Your task to perform on an android device: open app "Messenger Lite" Image 0: 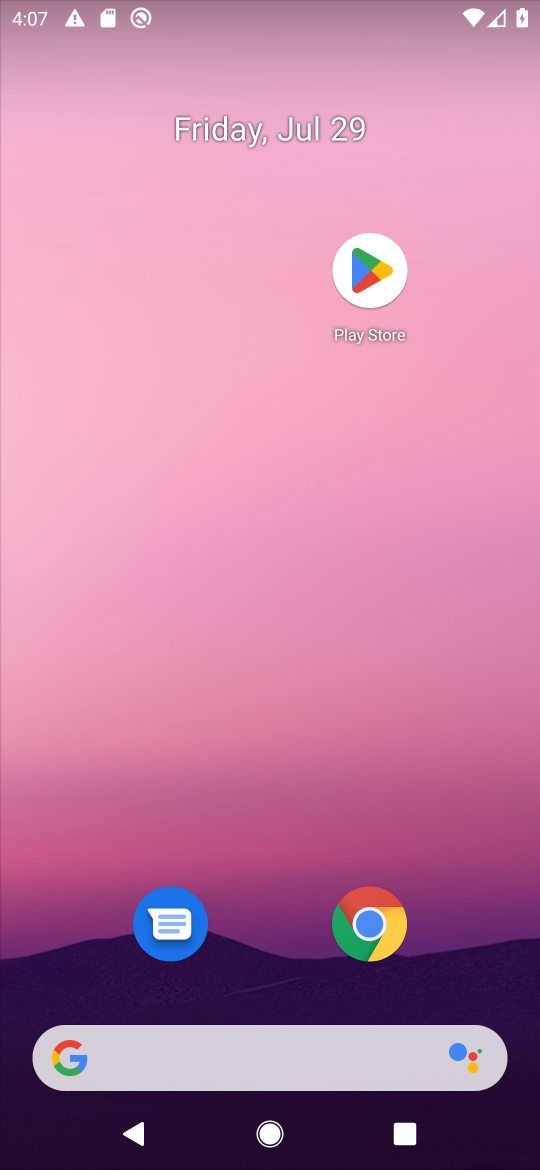
Step 0: click (271, 303)
Your task to perform on an android device: open app "Messenger Lite" Image 1: 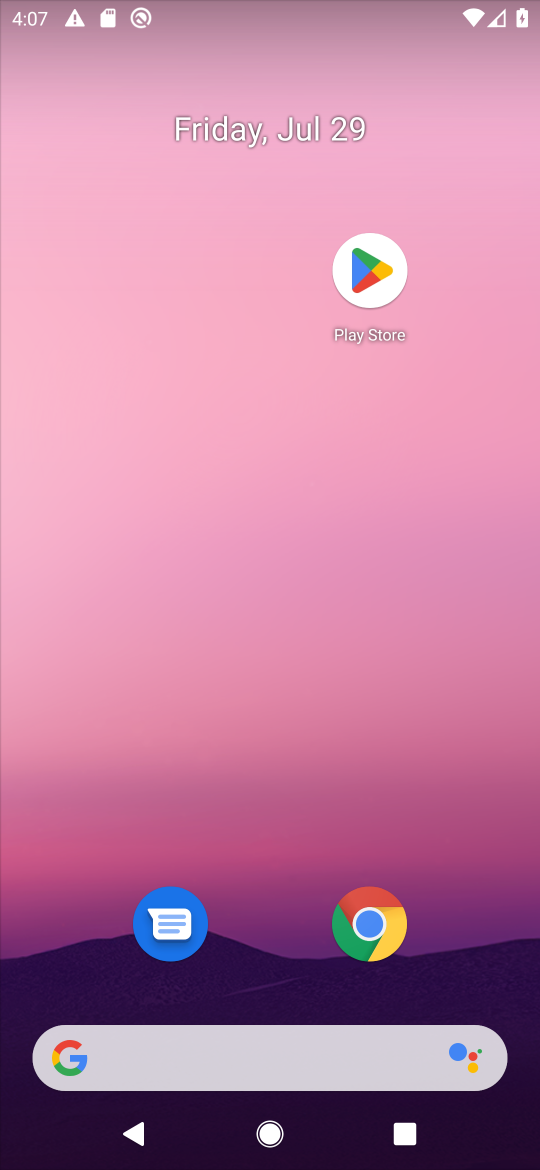
Step 1: drag from (212, 231) to (169, 18)
Your task to perform on an android device: open app "Messenger Lite" Image 2: 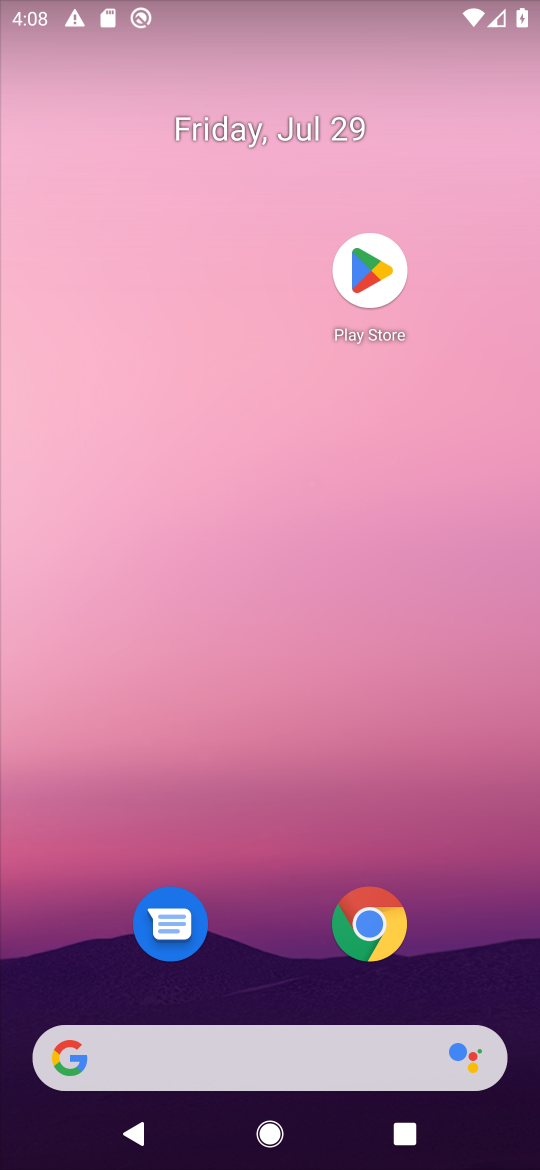
Step 2: drag from (240, 729) to (113, 150)
Your task to perform on an android device: open app "Messenger Lite" Image 3: 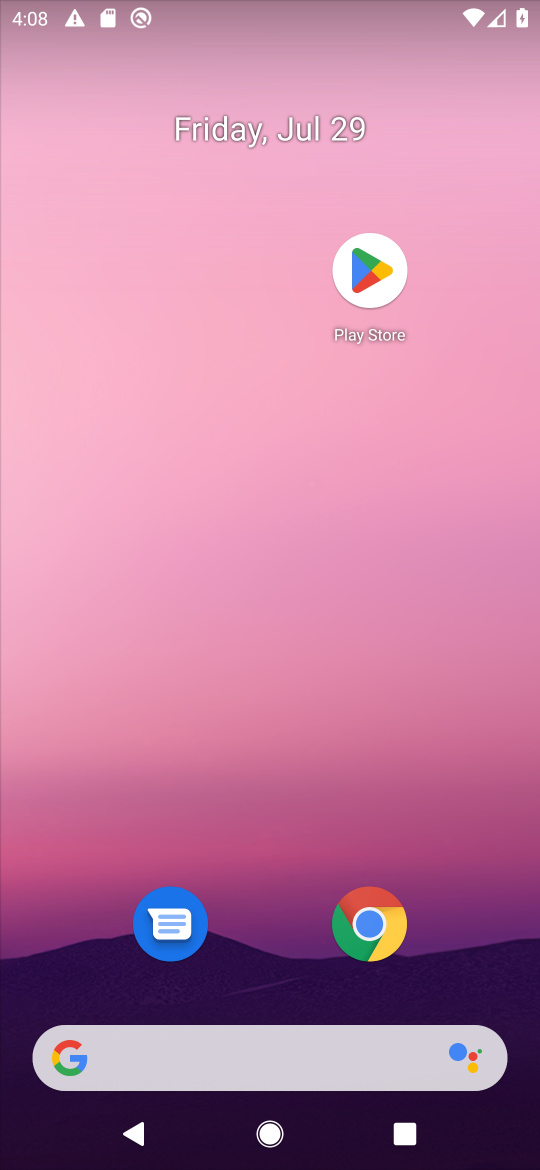
Step 3: drag from (298, 665) to (281, 103)
Your task to perform on an android device: open app "Messenger Lite" Image 4: 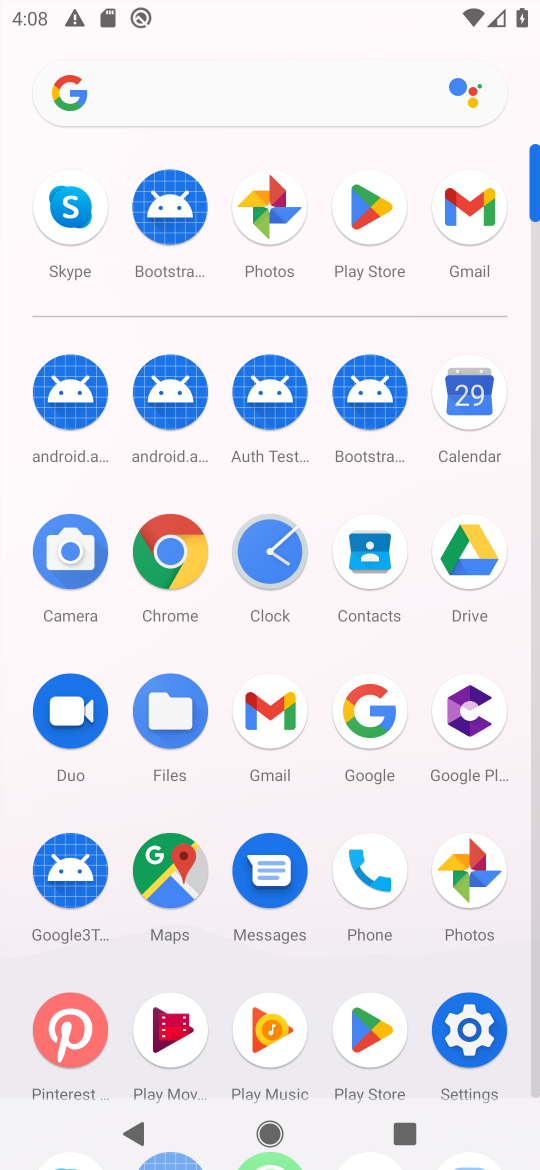
Step 4: click (367, 211)
Your task to perform on an android device: open app "Messenger Lite" Image 5: 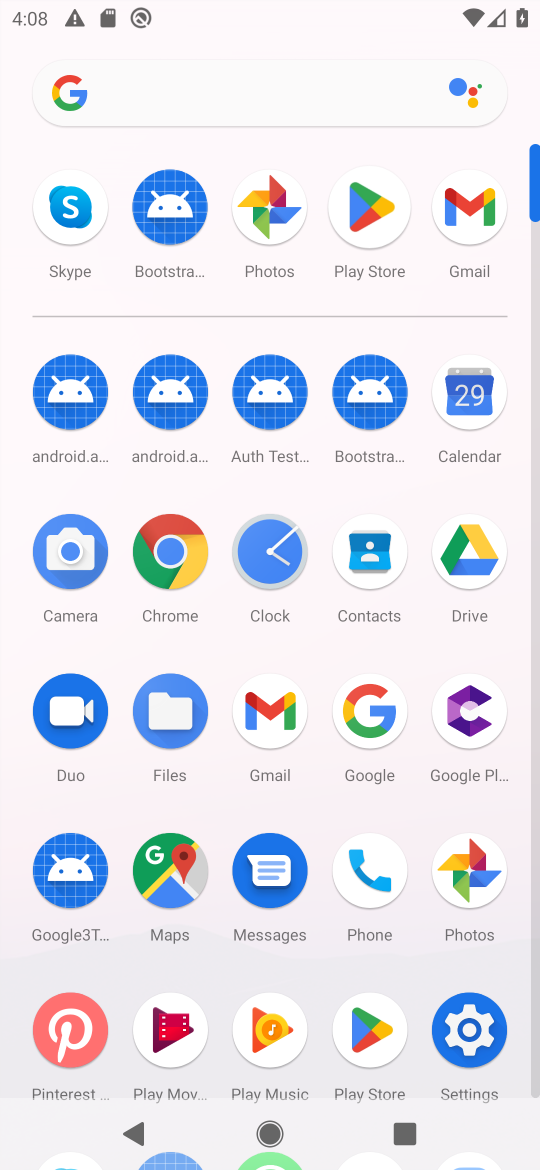
Step 5: click (374, 220)
Your task to perform on an android device: open app "Messenger Lite" Image 6: 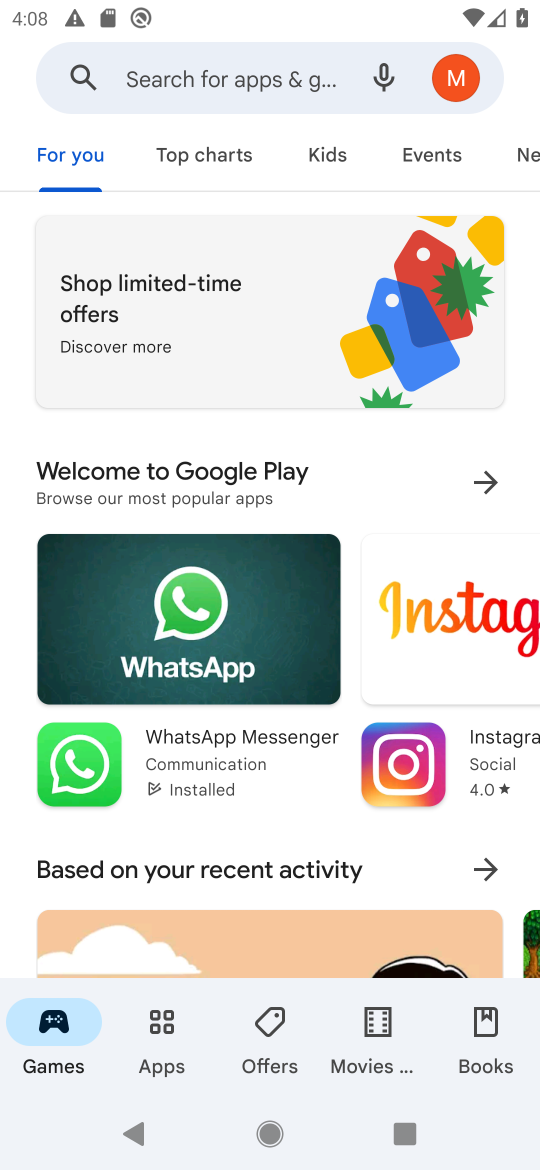
Step 6: click (151, 83)
Your task to perform on an android device: open app "Messenger Lite" Image 7: 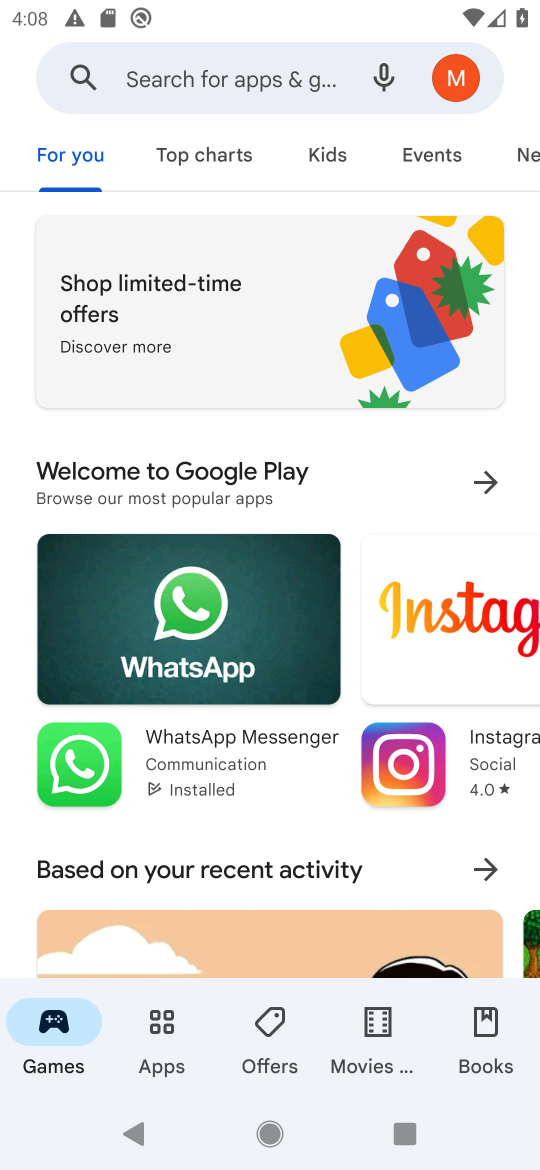
Step 7: click (146, 80)
Your task to perform on an android device: open app "Messenger Lite" Image 8: 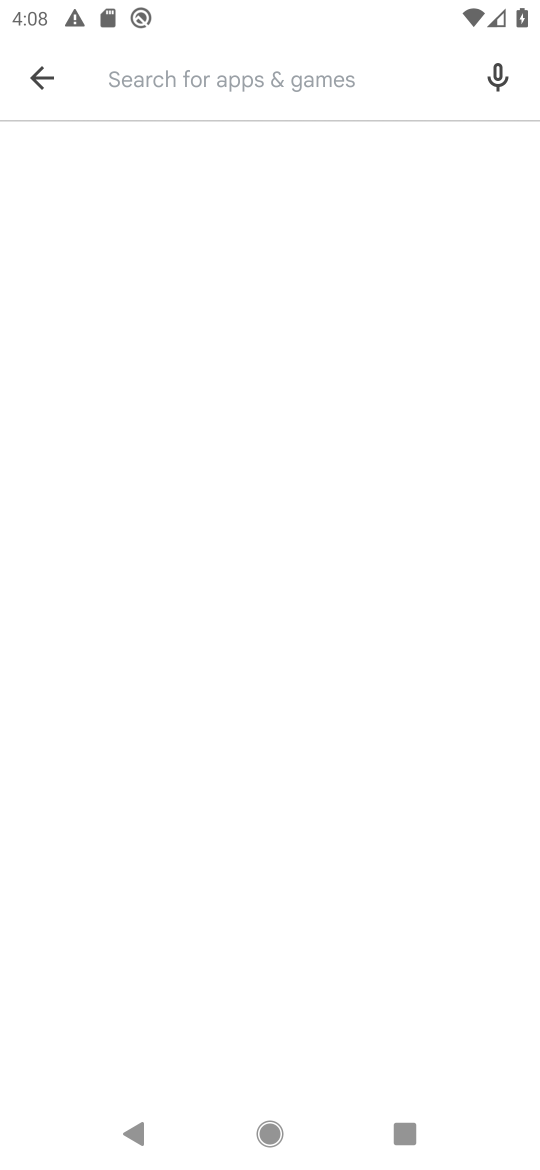
Step 8: click (145, 80)
Your task to perform on an android device: open app "Messenger Lite" Image 9: 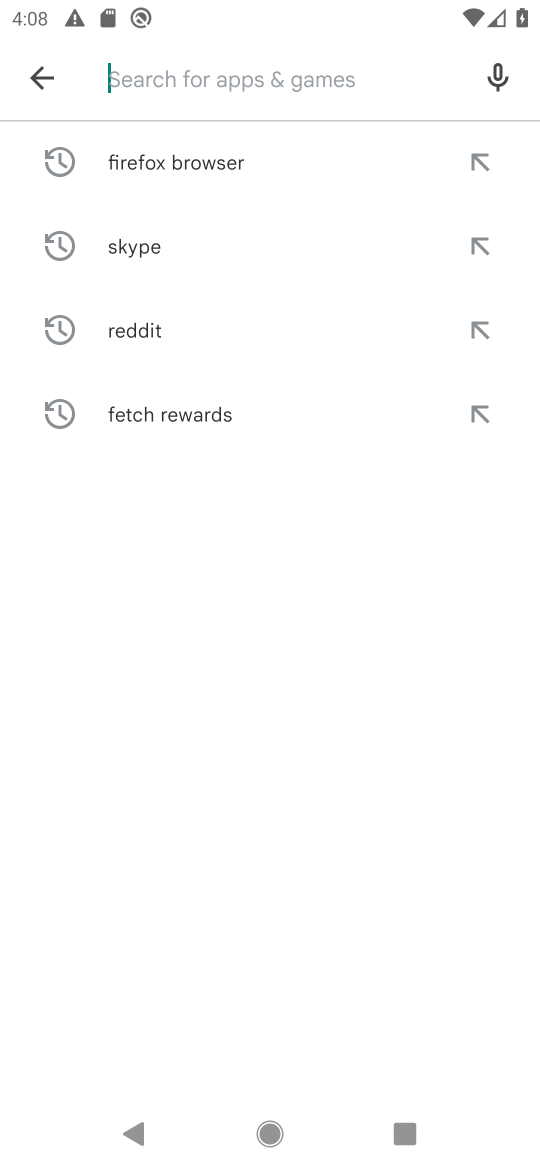
Step 9: click (150, 69)
Your task to perform on an android device: open app "Messenger Lite" Image 10: 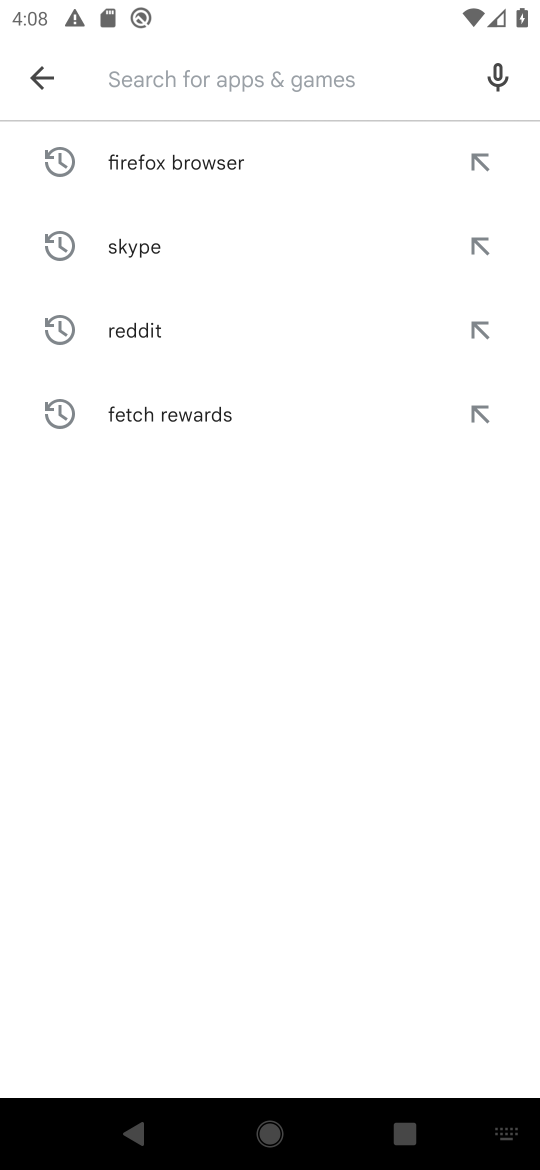
Step 10: click (160, 84)
Your task to perform on an android device: open app "Messenger Lite" Image 11: 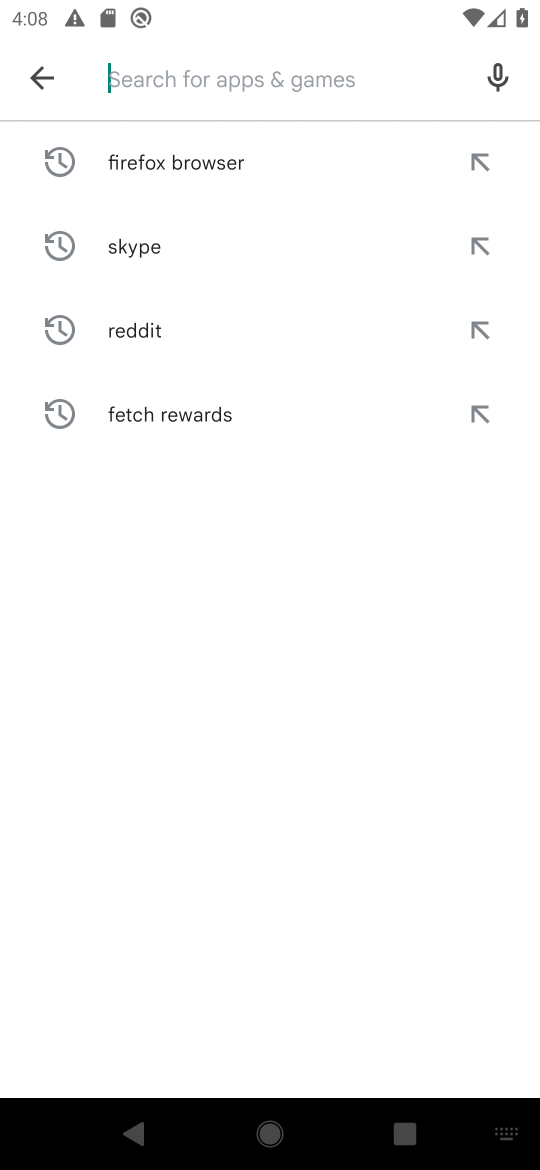
Step 11: type "Messenger lite"
Your task to perform on an android device: open app "Messenger Lite" Image 12: 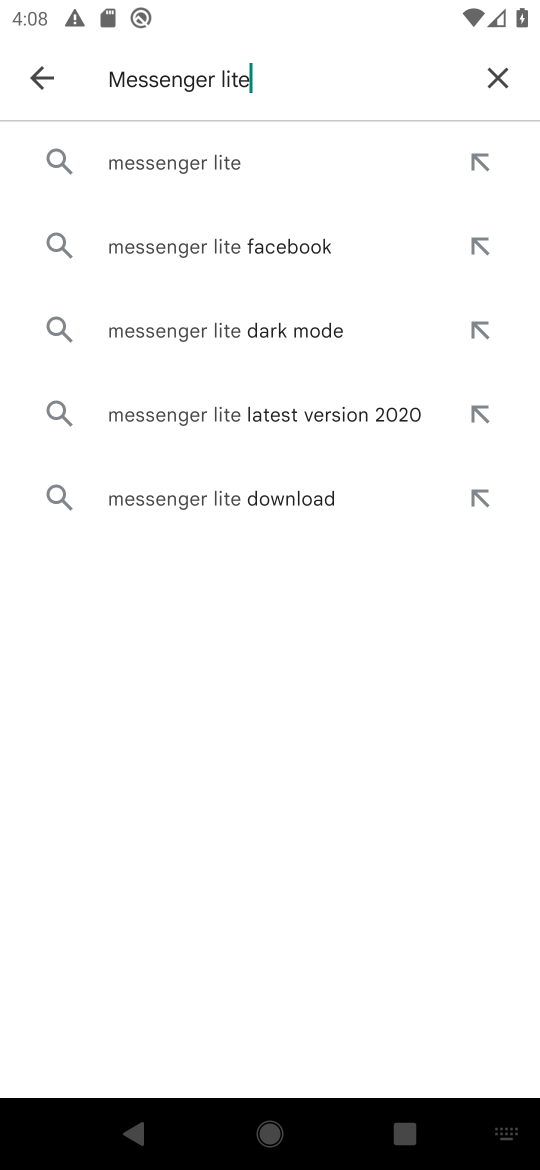
Step 12: click (182, 153)
Your task to perform on an android device: open app "Messenger Lite" Image 13: 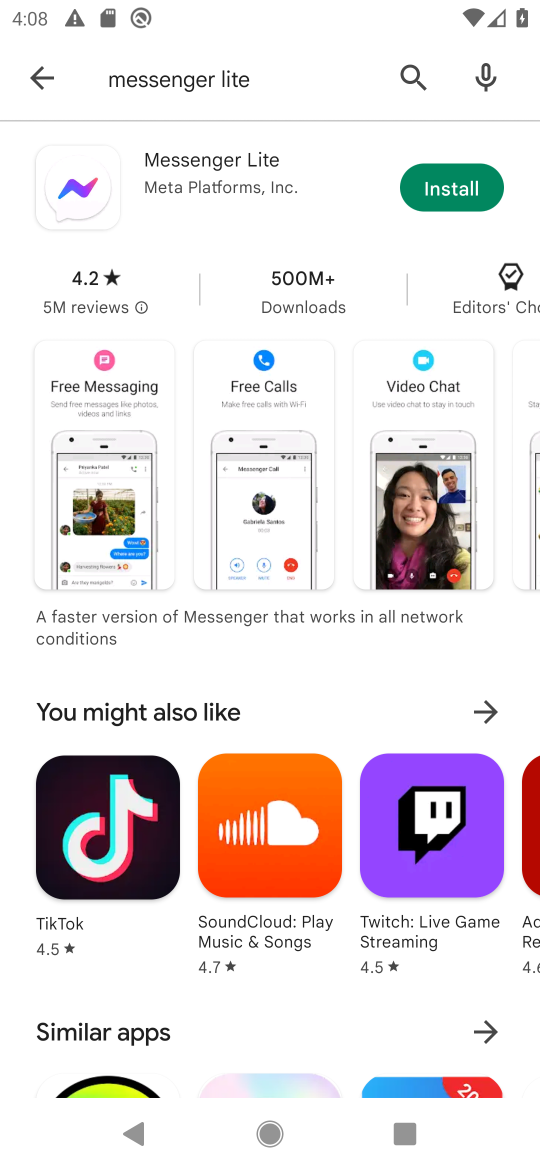
Step 13: click (433, 196)
Your task to perform on an android device: open app "Messenger Lite" Image 14: 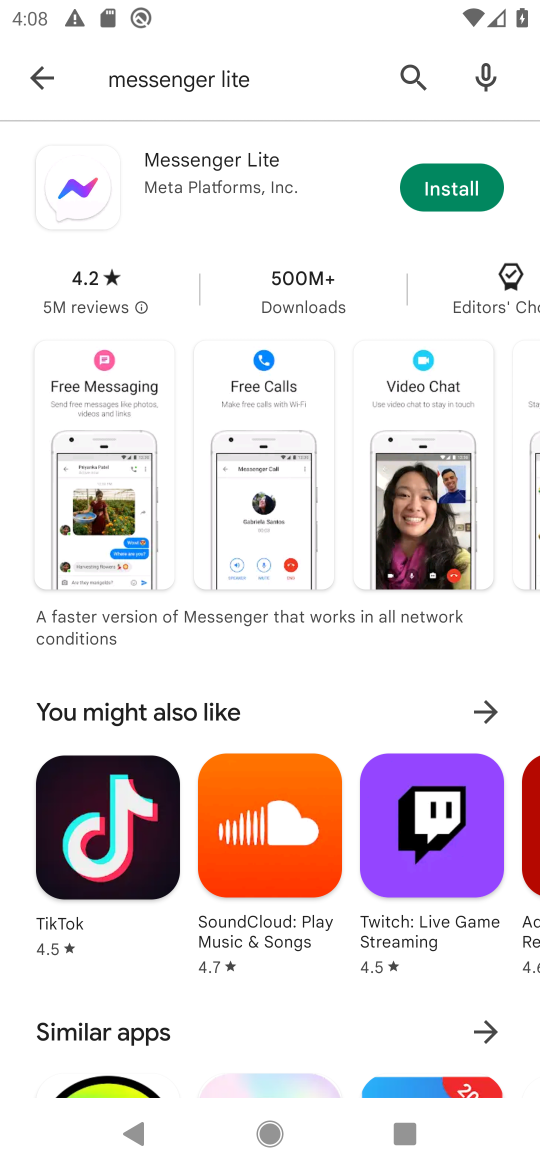
Step 14: click (433, 196)
Your task to perform on an android device: open app "Messenger Lite" Image 15: 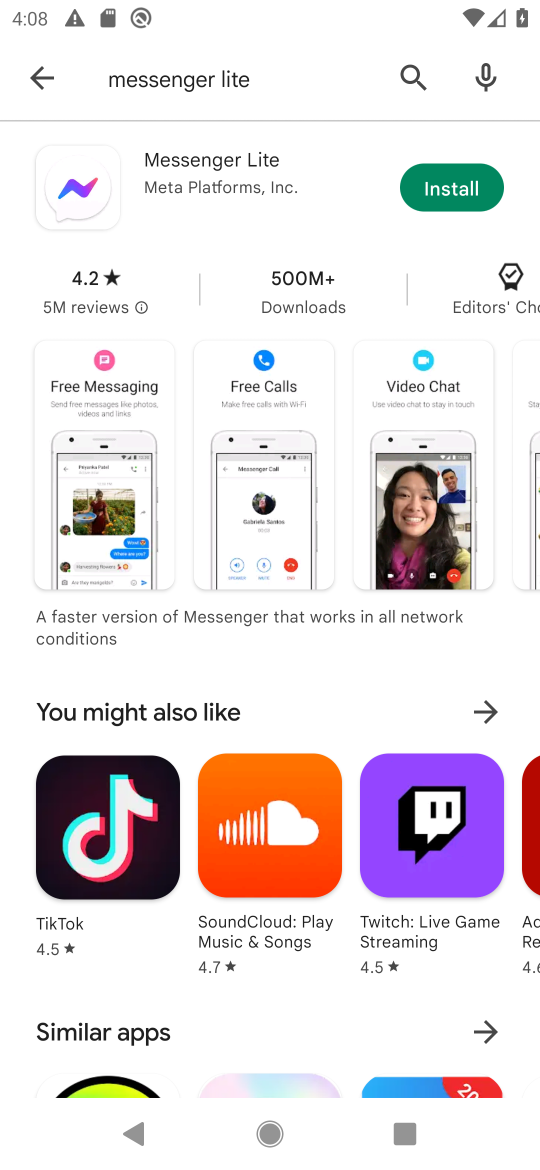
Step 15: click (438, 196)
Your task to perform on an android device: open app "Messenger Lite" Image 16: 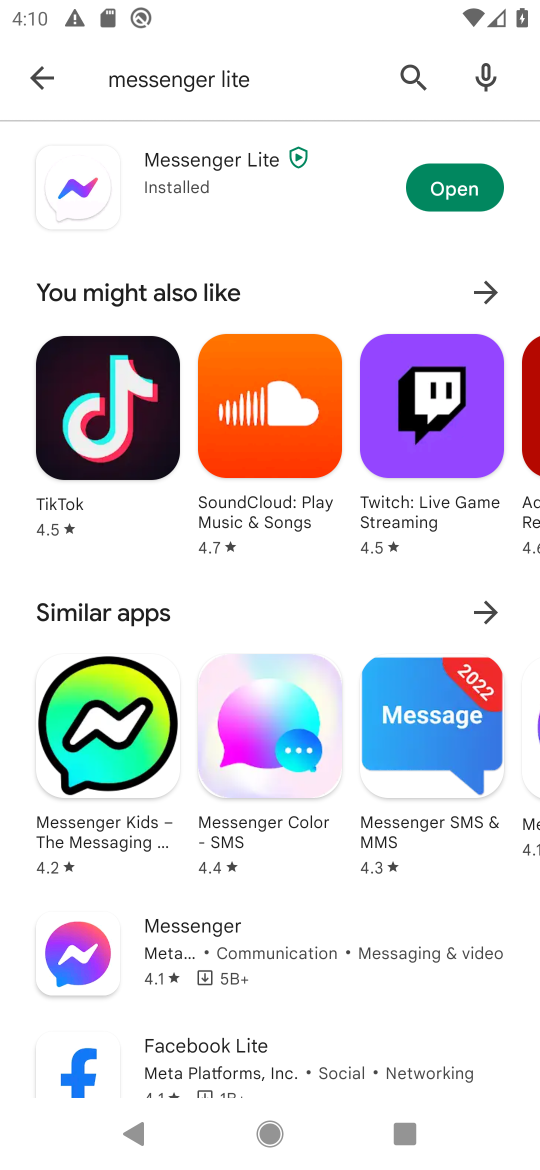
Step 16: click (437, 170)
Your task to perform on an android device: open app "Messenger Lite" Image 17: 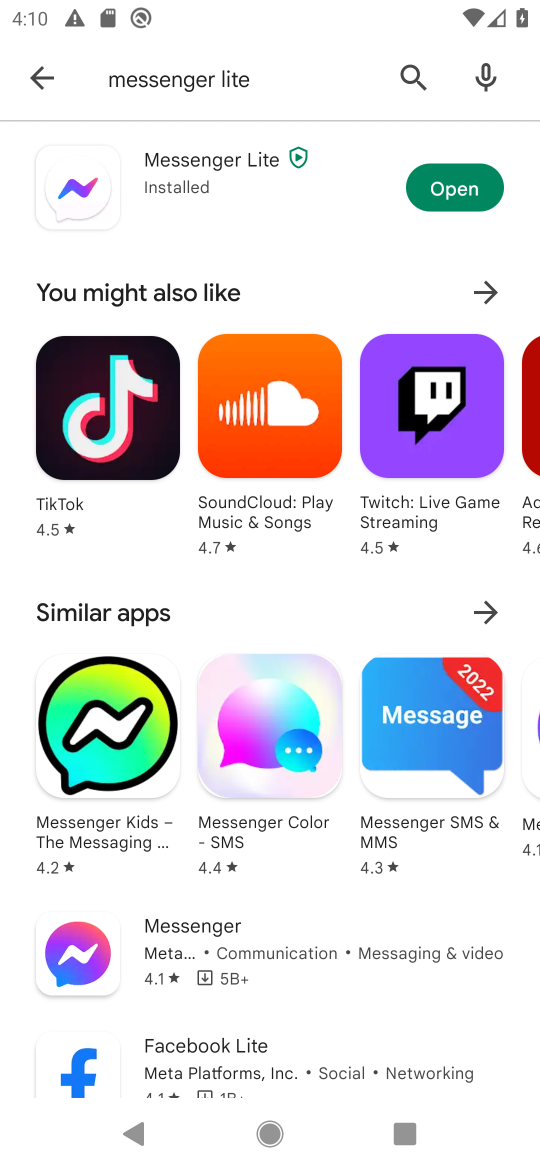
Step 17: click (450, 187)
Your task to perform on an android device: open app "Messenger Lite" Image 18: 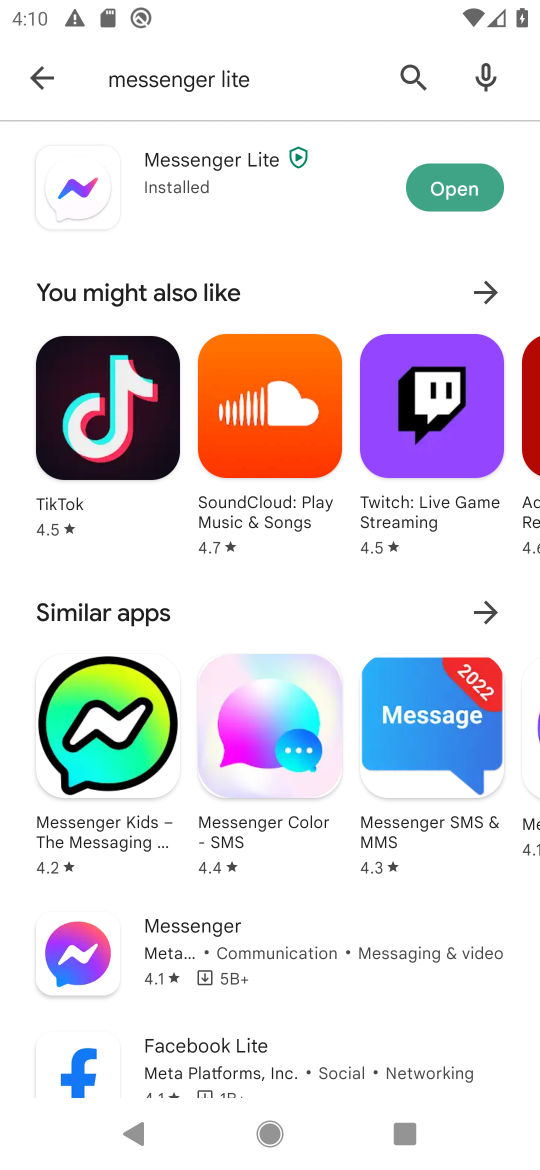
Step 18: click (459, 190)
Your task to perform on an android device: open app "Messenger Lite" Image 19: 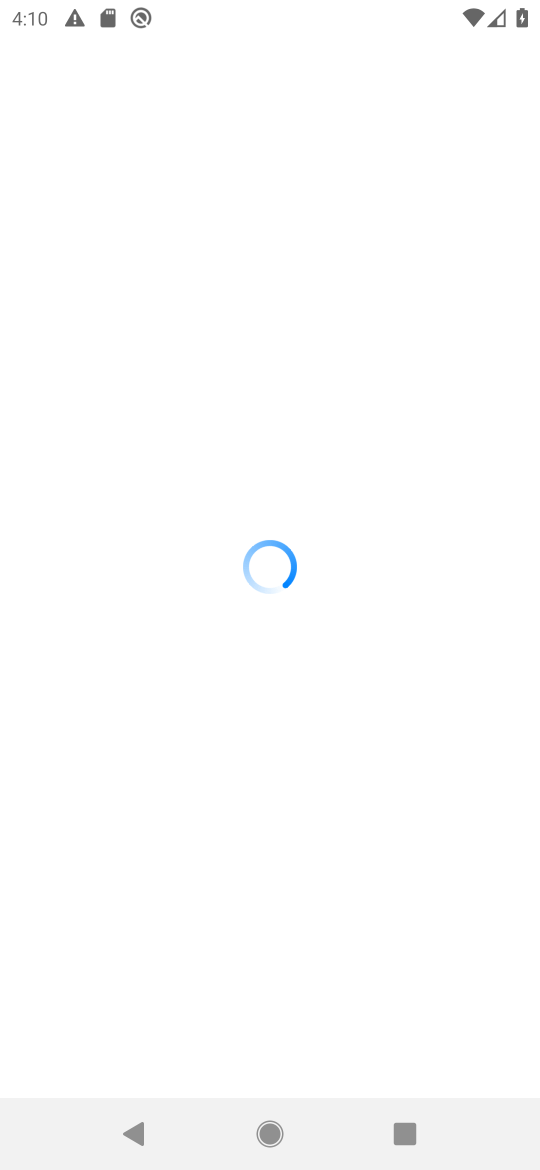
Step 19: drag from (272, 772) to (216, 16)
Your task to perform on an android device: open app "Messenger Lite" Image 20: 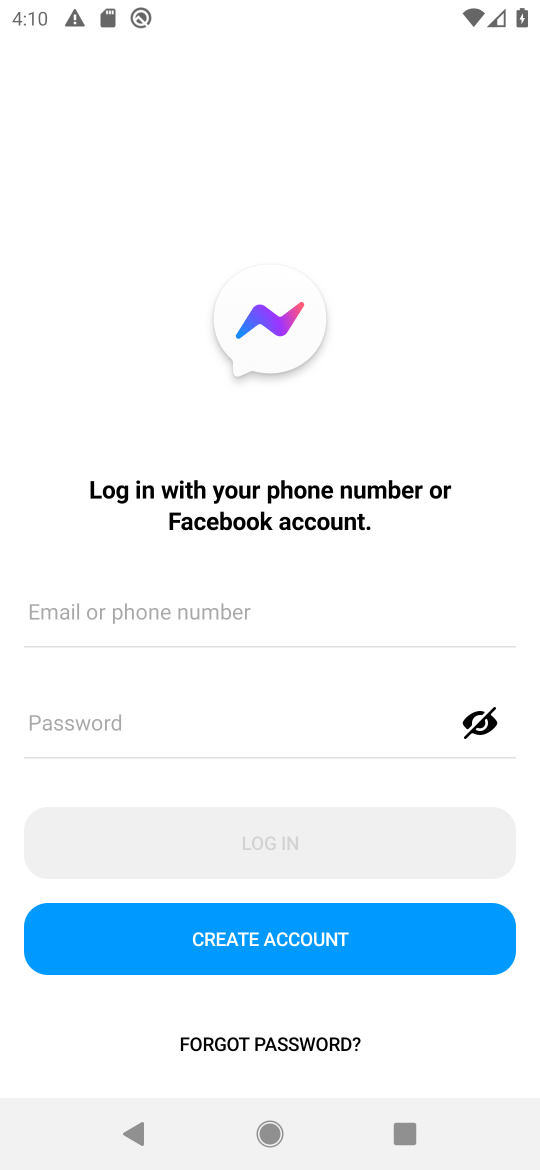
Step 20: drag from (262, 755) to (156, 135)
Your task to perform on an android device: open app "Messenger Lite" Image 21: 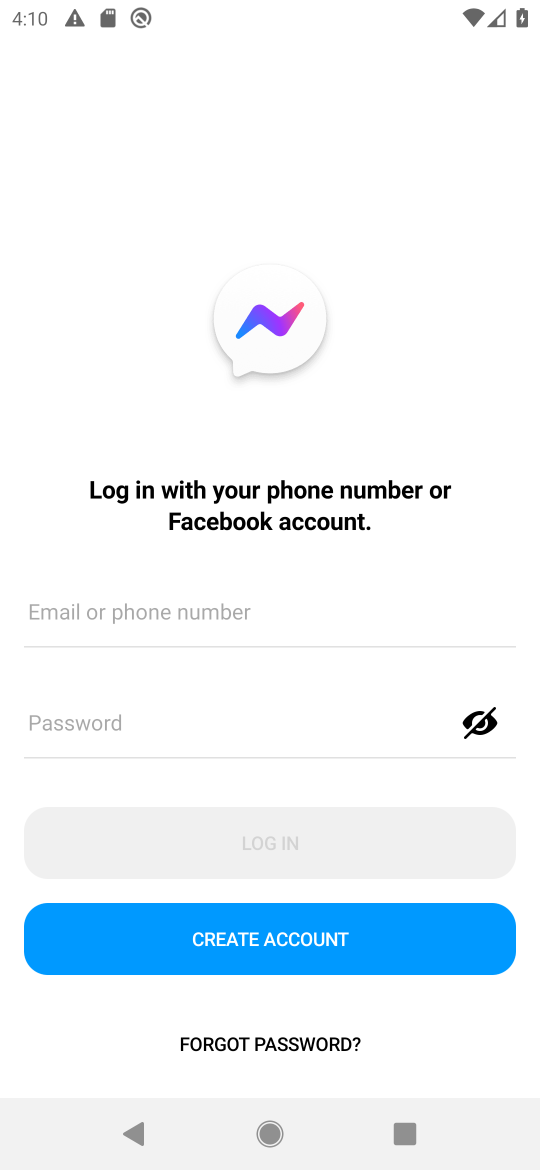
Step 21: click (220, 123)
Your task to perform on an android device: open app "Messenger Lite" Image 22: 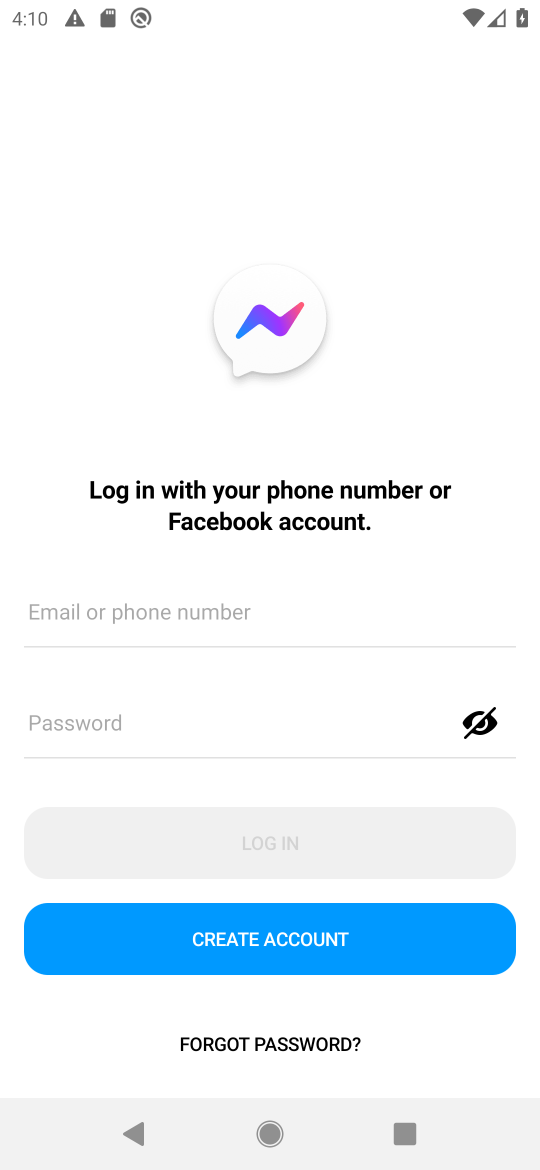
Step 22: task complete